Your task to perform on an android device: change the clock display to analog Image 0: 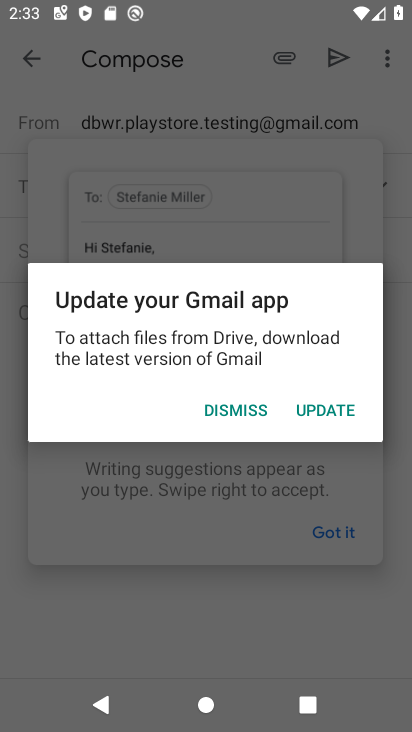
Step 0: press home button
Your task to perform on an android device: change the clock display to analog Image 1: 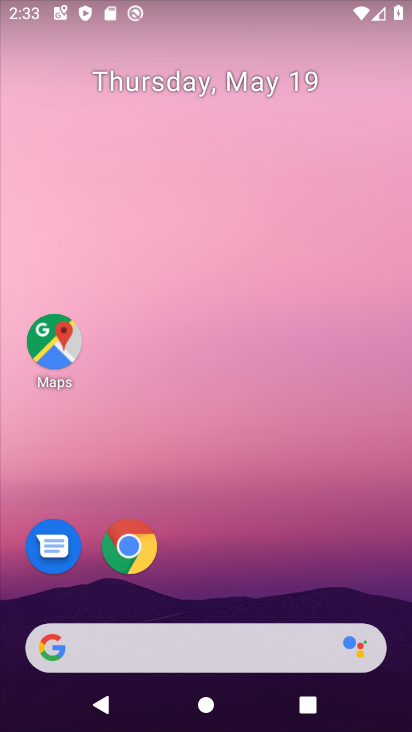
Step 1: drag from (264, 573) to (205, 272)
Your task to perform on an android device: change the clock display to analog Image 2: 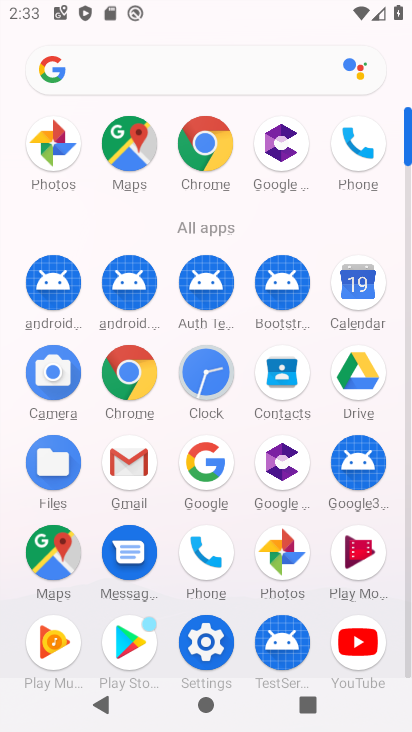
Step 2: click (206, 372)
Your task to perform on an android device: change the clock display to analog Image 3: 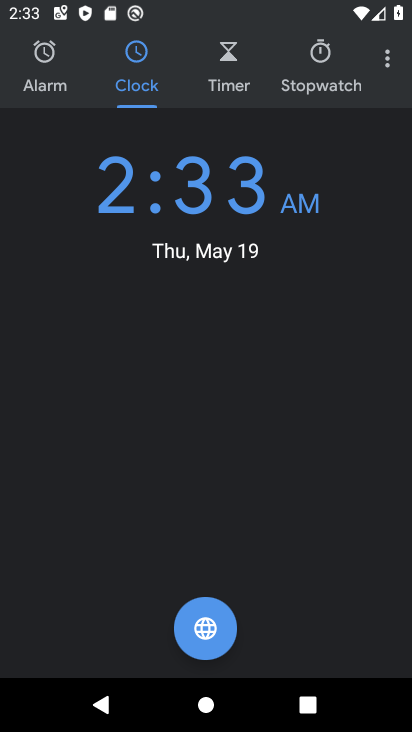
Step 3: click (389, 61)
Your task to perform on an android device: change the clock display to analog Image 4: 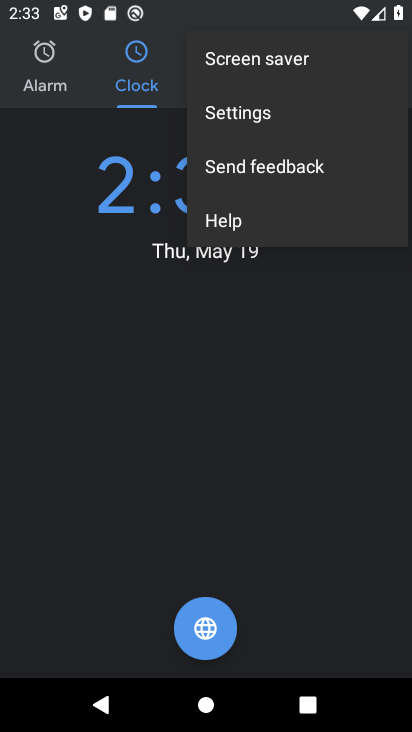
Step 4: click (265, 108)
Your task to perform on an android device: change the clock display to analog Image 5: 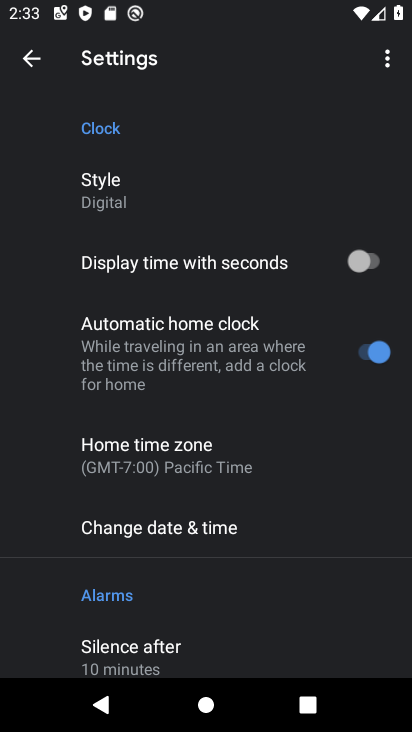
Step 5: click (116, 184)
Your task to perform on an android device: change the clock display to analog Image 6: 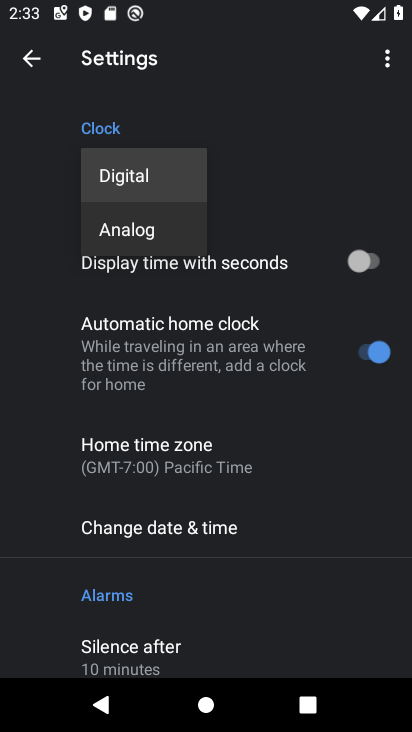
Step 6: click (131, 230)
Your task to perform on an android device: change the clock display to analog Image 7: 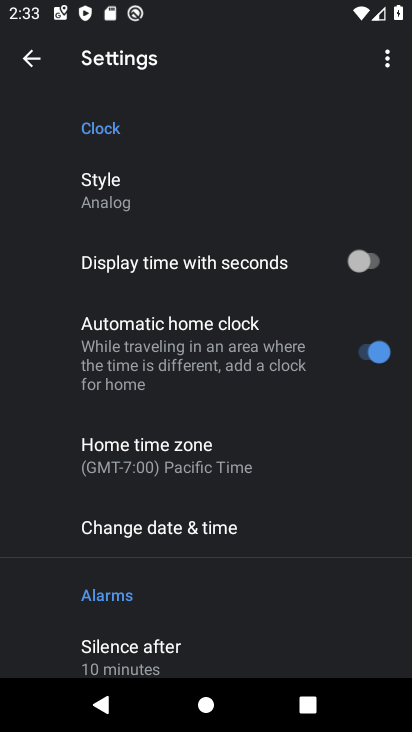
Step 7: task complete